Your task to perform on an android device: turn on data saver in the chrome app Image 0: 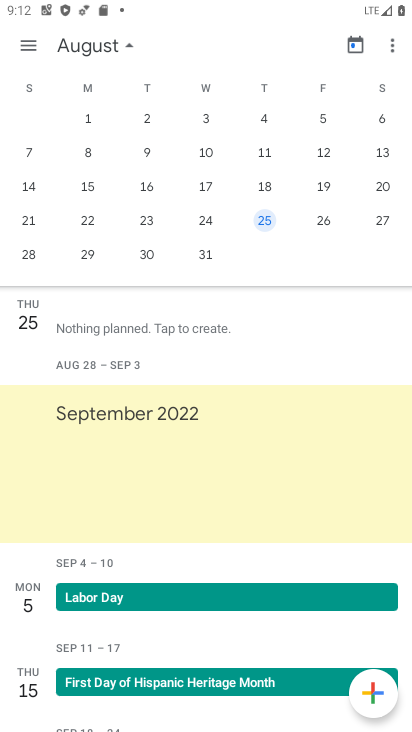
Step 0: press home button
Your task to perform on an android device: turn on data saver in the chrome app Image 1: 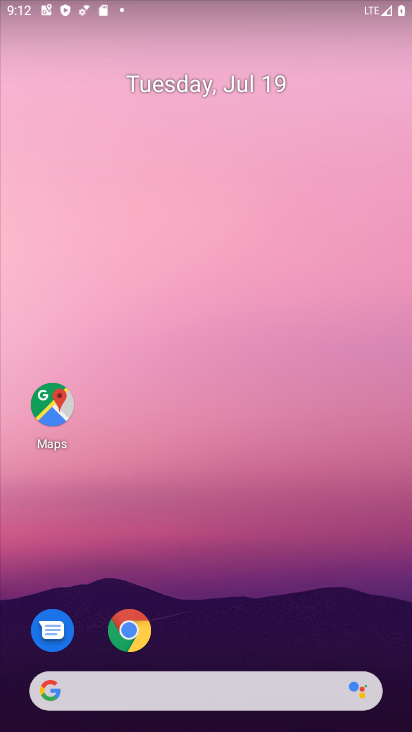
Step 1: click (129, 630)
Your task to perform on an android device: turn on data saver in the chrome app Image 2: 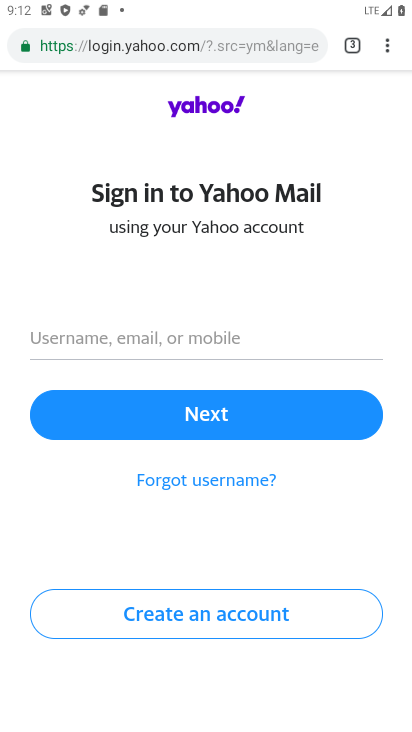
Step 2: click (386, 44)
Your task to perform on an android device: turn on data saver in the chrome app Image 3: 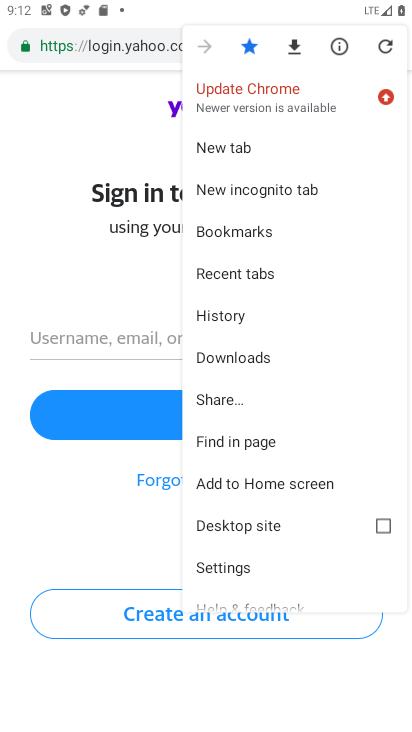
Step 3: click (216, 565)
Your task to perform on an android device: turn on data saver in the chrome app Image 4: 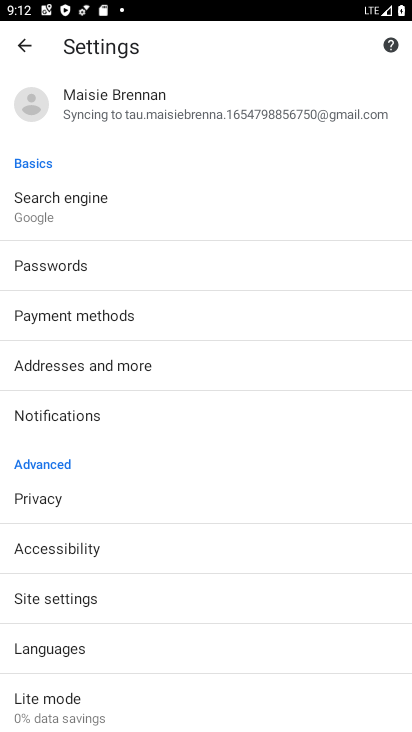
Step 4: click (58, 708)
Your task to perform on an android device: turn on data saver in the chrome app Image 5: 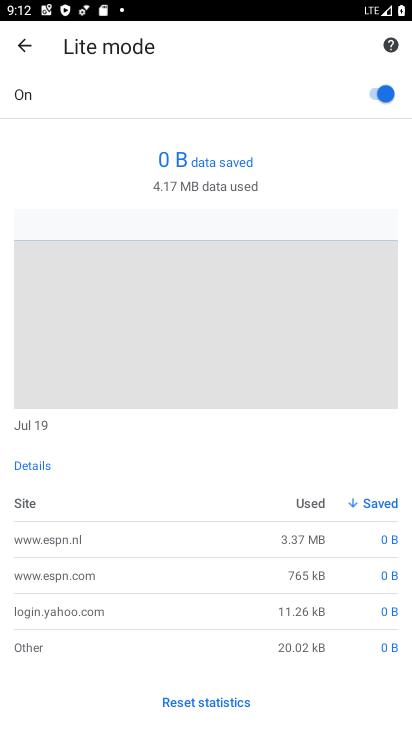
Step 5: task complete